Your task to perform on an android device: What's on the menu at Chipotle? Image 0: 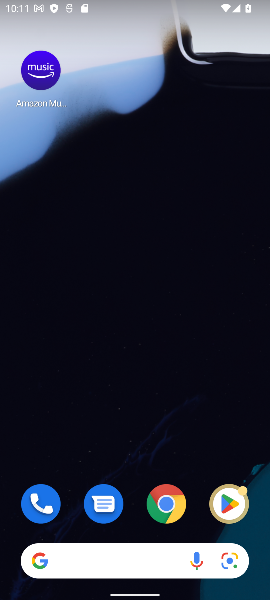
Step 0: click (162, 501)
Your task to perform on an android device: What's on the menu at Chipotle? Image 1: 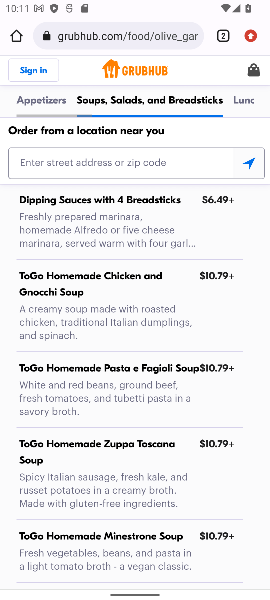
Step 1: click (140, 22)
Your task to perform on an android device: What's on the menu at Chipotle? Image 2: 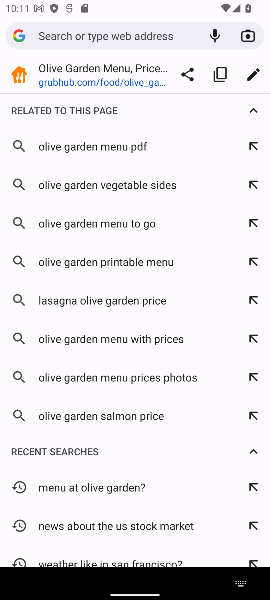
Step 2: type "menu at Chipotle?"
Your task to perform on an android device: What's on the menu at Chipotle? Image 3: 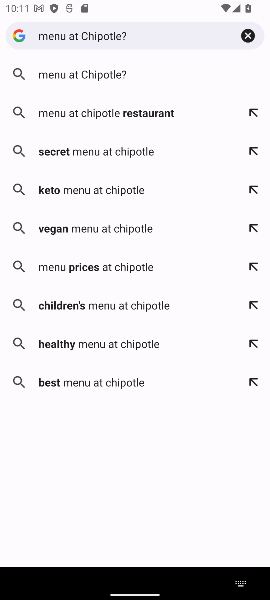
Step 3: click (72, 68)
Your task to perform on an android device: What's on the menu at Chipotle? Image 4: 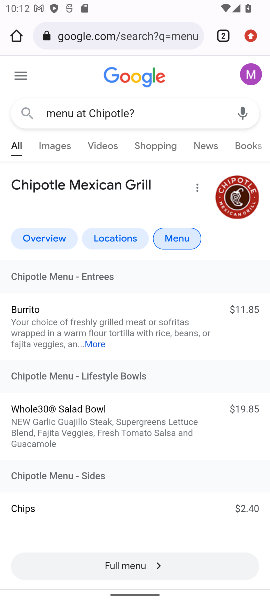
Step 4: drag from (139, 399) to (132, 93)
Your task to perform on an android device: What's on the menu at Chipotle? Image 5: 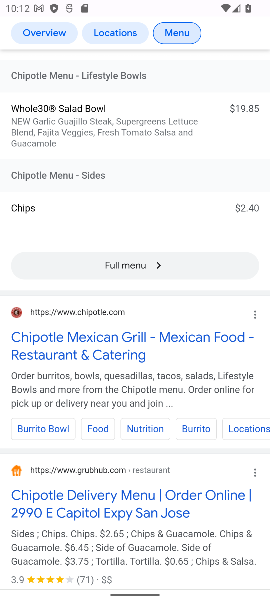
Step 5: click (66, 504)
Your task to perform on an android device: What's on the menu at Chipotle? Image 6: 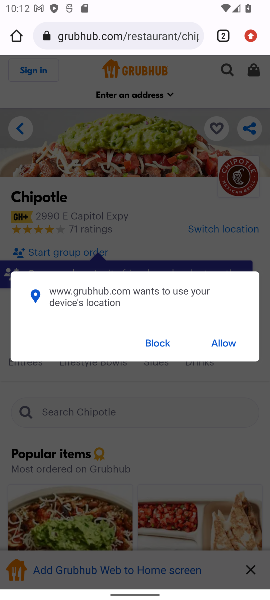
Step 6: click (153, 340)
Your task to perform on an android device: What's on the menu at Chipotle? Image 7: 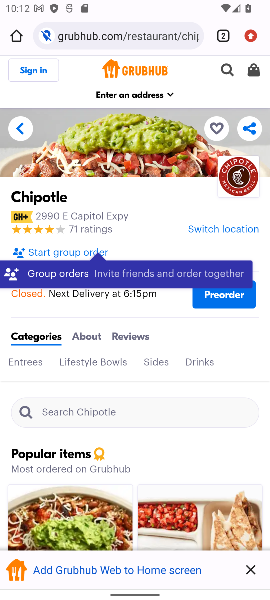
Step 7: task complete